Your task to perform on an android device: change keyboard looks Image 0: 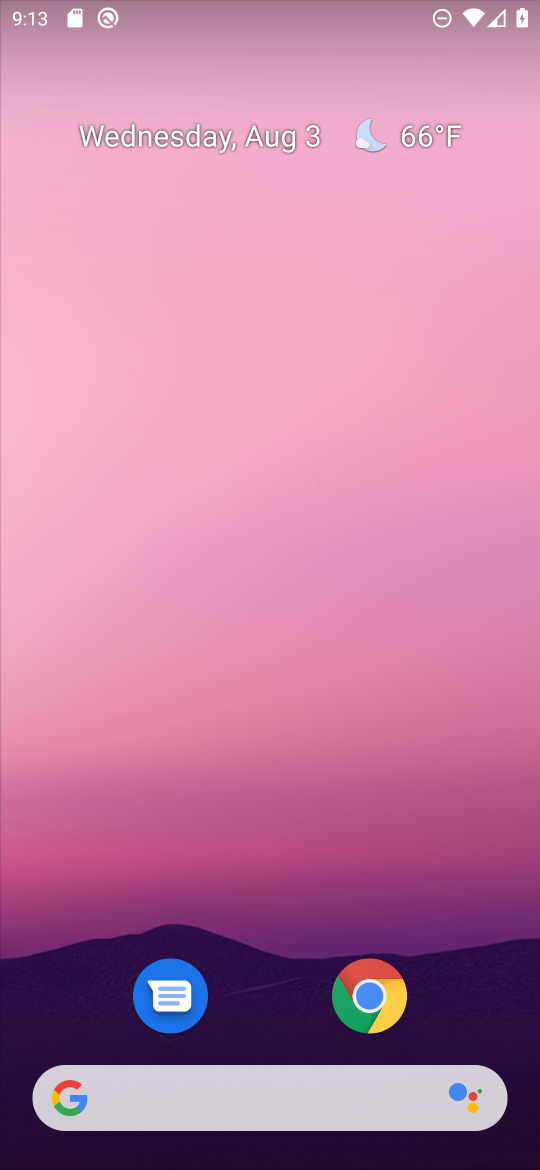
Step 0: drag from (290, 768) to (180, 5)
Your task to perform on an android device: change keyboard looks Image 1: 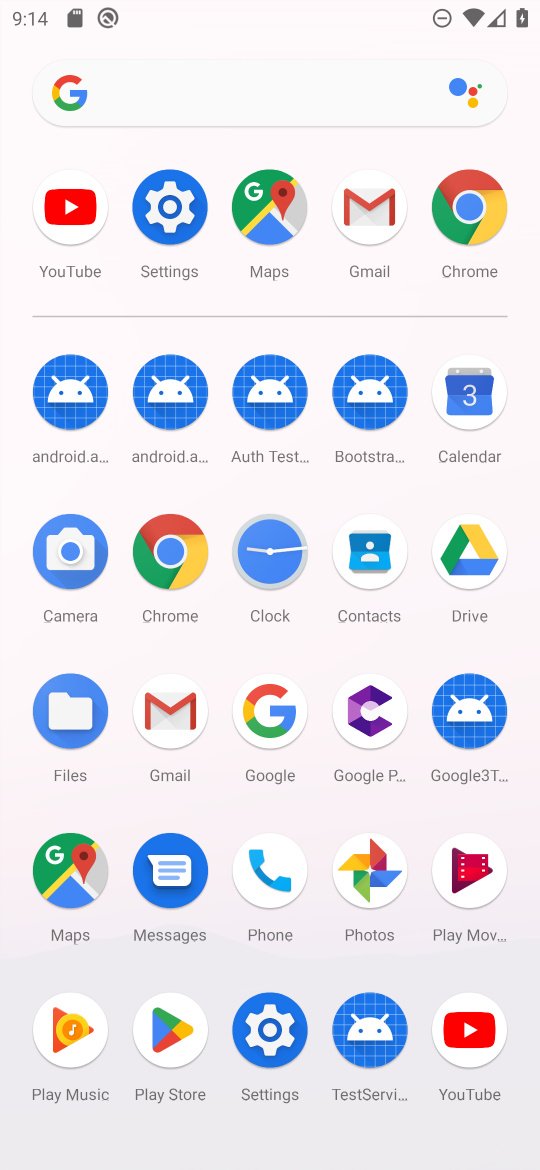
Step 1: click (178, 197)
Your task to perform on an android device: change keyboard looks Image 2: 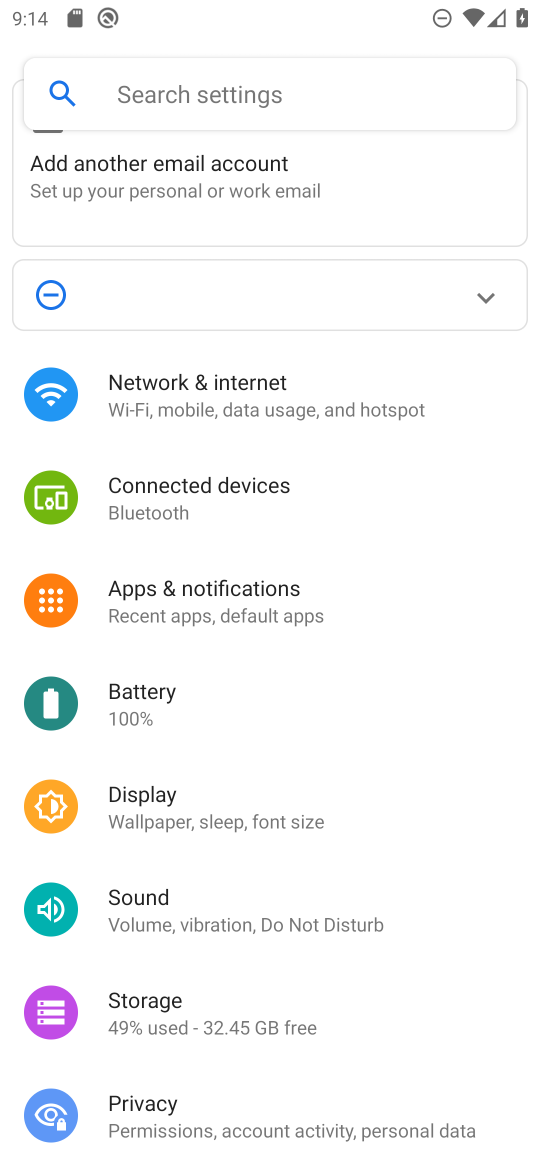
Step 2: drag from (297, 955) to (294, 114)
Your task to perform on an android device: change keyboard looks Image 3: 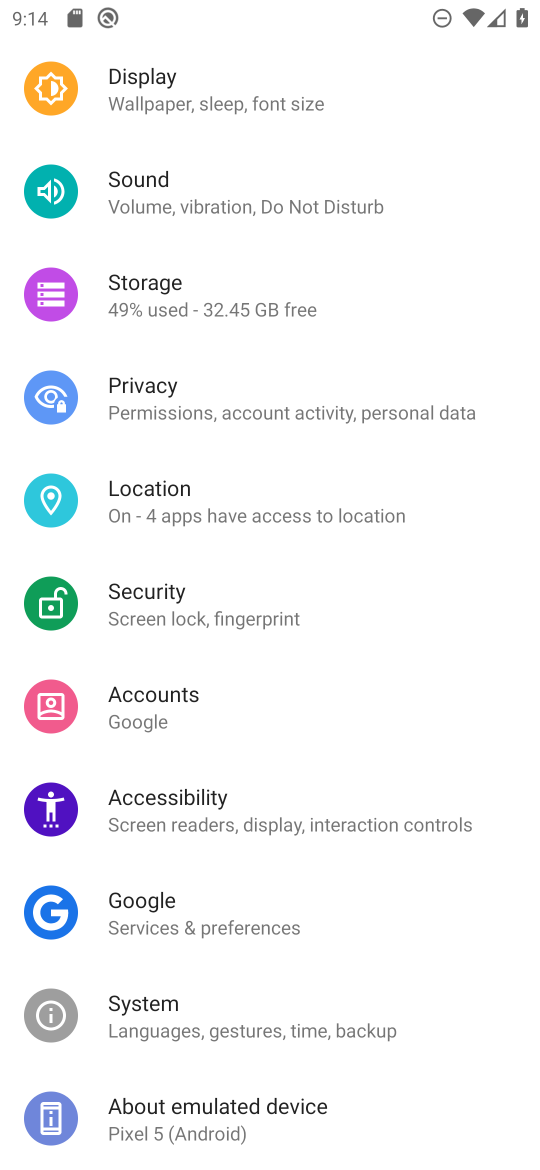
Step 3: click (239, 1014)
Your task to perform on an android device: change keyboard looks Image 4: 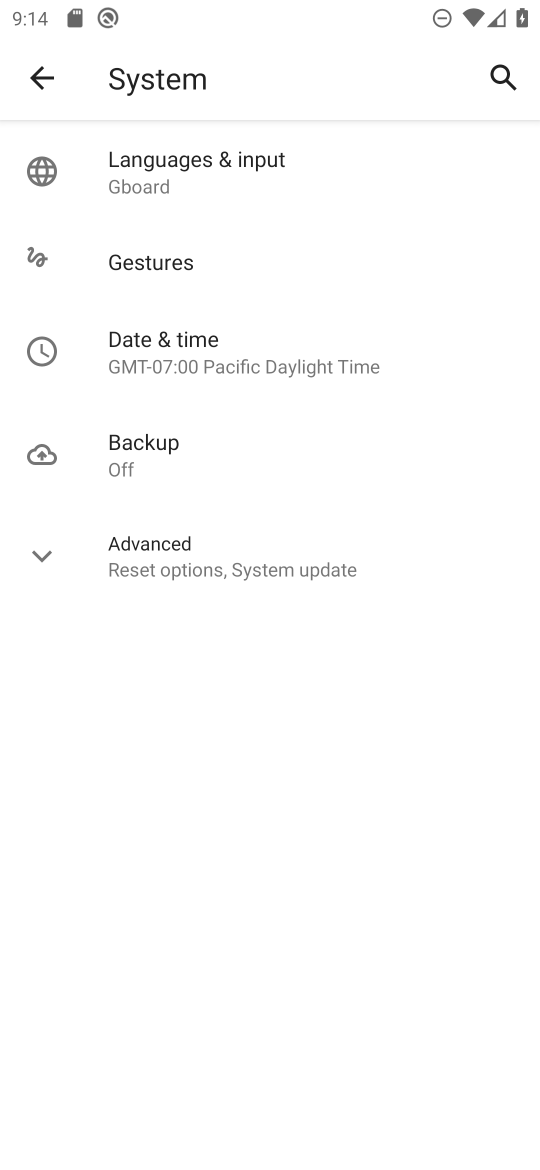
Step 4: click (193, 166)
Your task to perform on an android device: change keyboard looks Image 5: 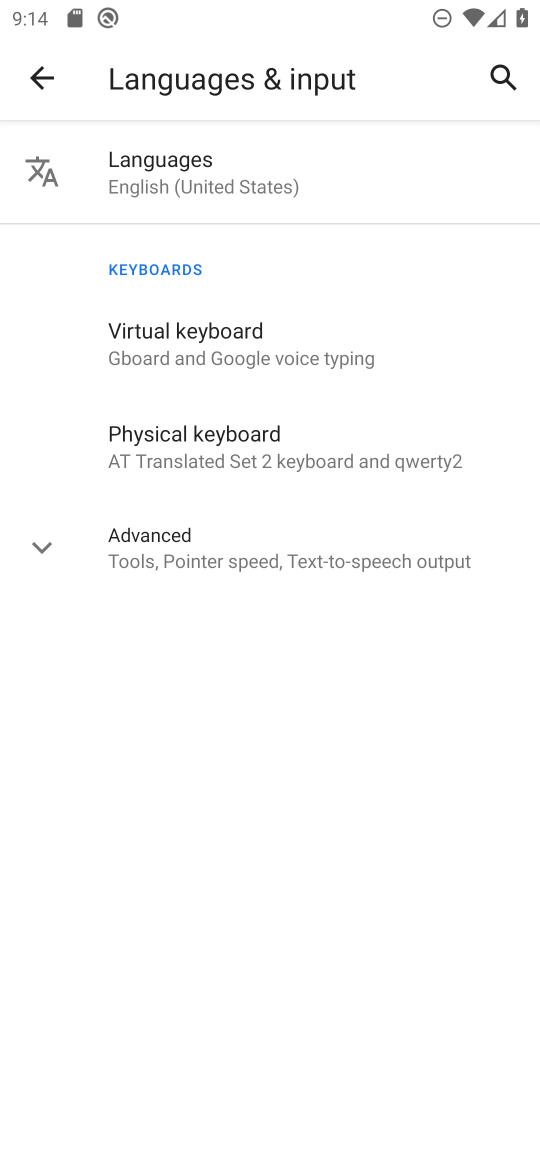
Step 5: click (204, 329)
Your task to perform on an android device: change keyboard looks Image 6: 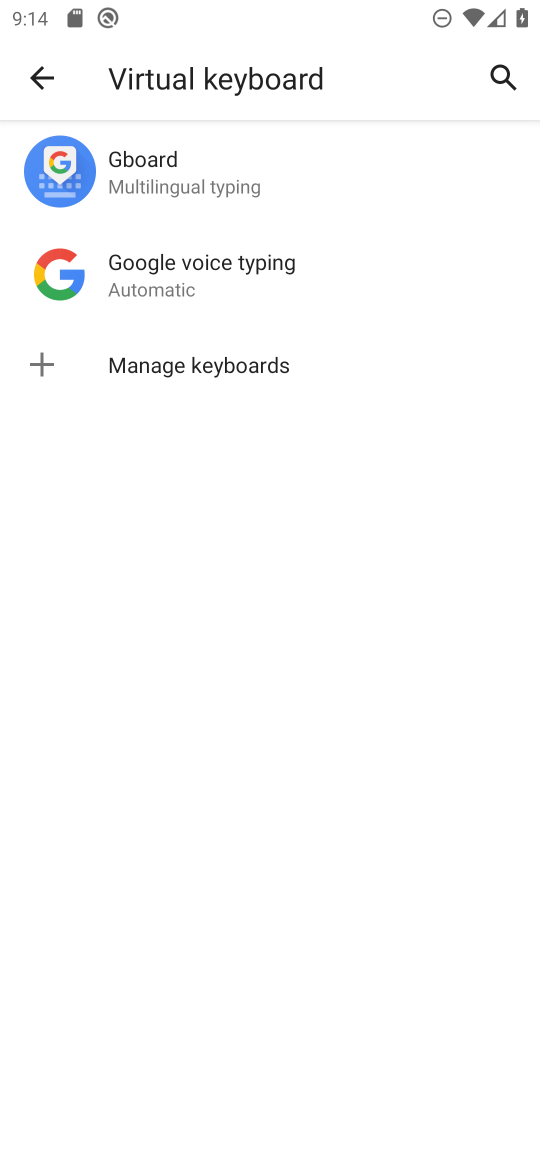
Step 6: click (177, 159)
Your task to perform on an android device: change keyboard looks Image 7: 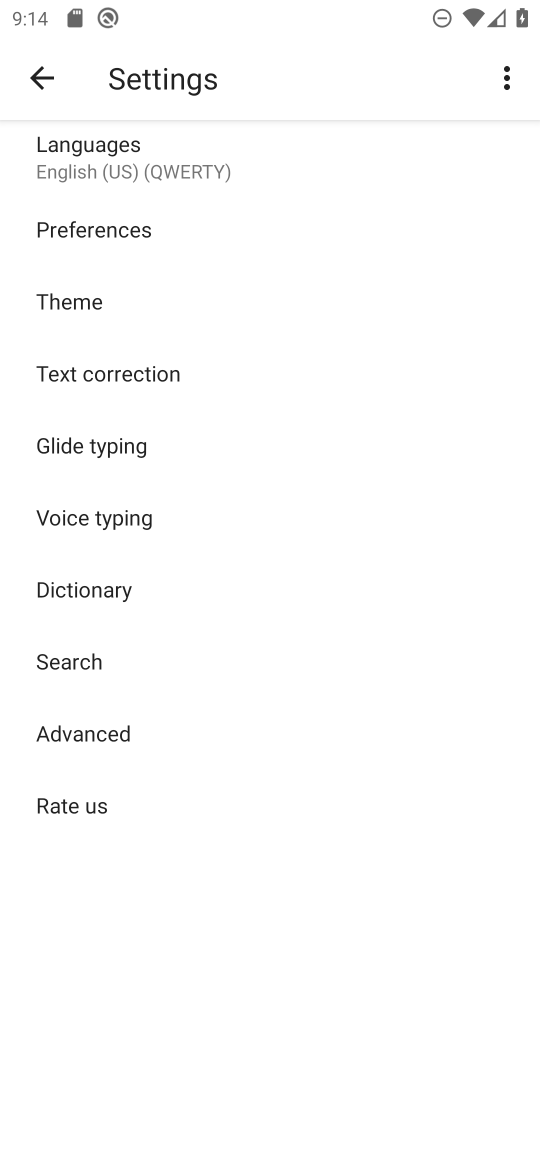
Step 7: click (82, 292)
Your task to perform on an android device: change keyboard looks Image 8: 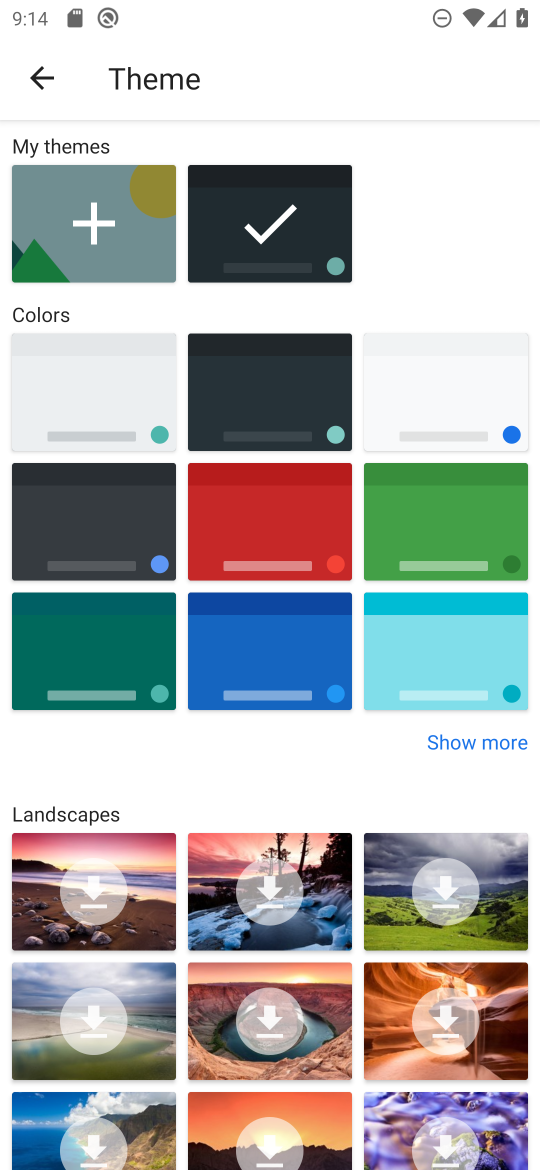
Step 8: click (93, 394)
Your task to perform on an android device: change keyboard looks Image 9: 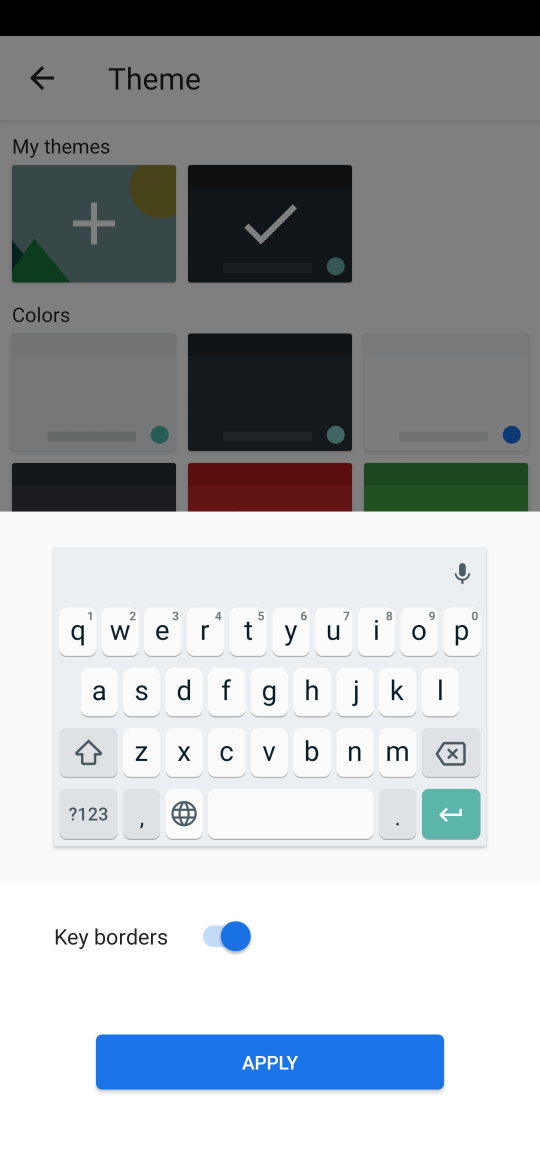
Step 9: click (277, 1055)
Your task to perform on an android device: change keyboard looks Image 10: 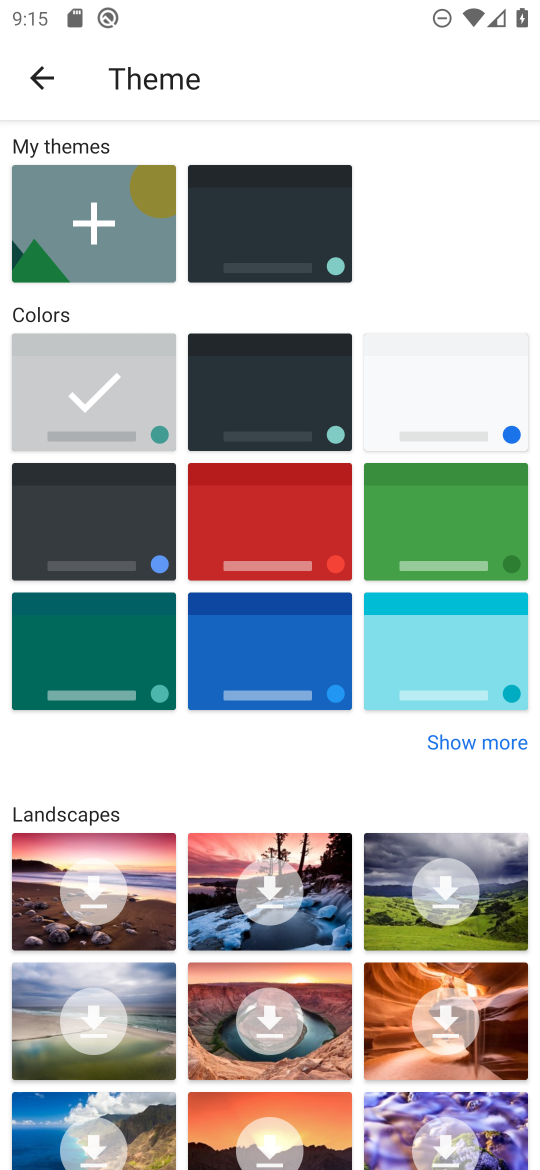
Step 10: task complete